Your task to perform on an android device: Open Android settings Image 0: 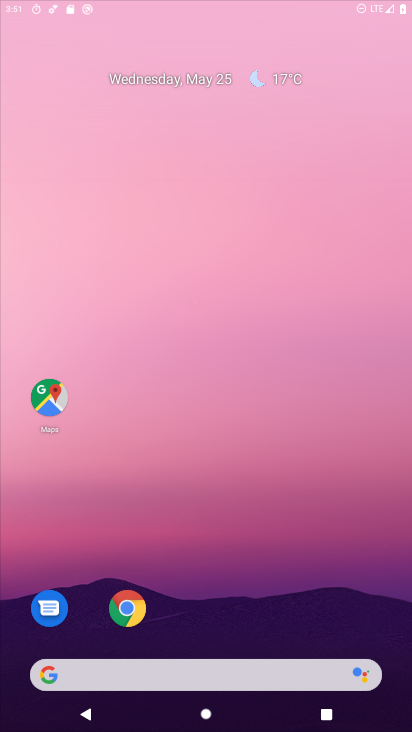
Step 0: press home button
Your task to perform on an android device: Open Android settings Image 1: 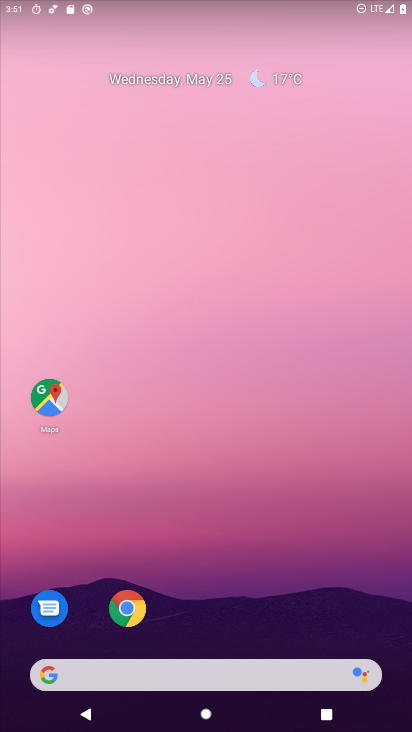
Step 1: drag from (325, 633) to (192, 160)
Your task to perform on an android device: Open Android settings Image 2: 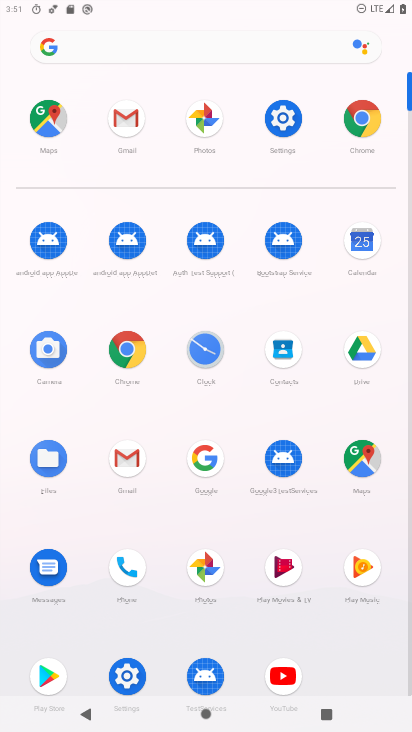
Step 2: click (281, 121)
Your task to perform on an android device: Open Android settings Image 3: 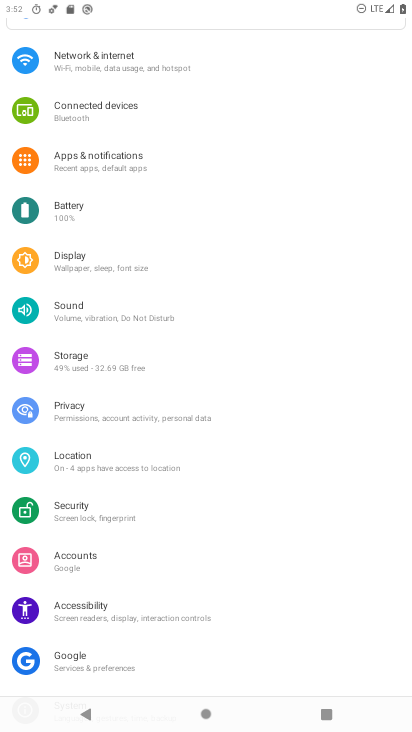
Step 3: task complete